Your task to perform on an android device: turn on the 24-hour format for clock Image 0: 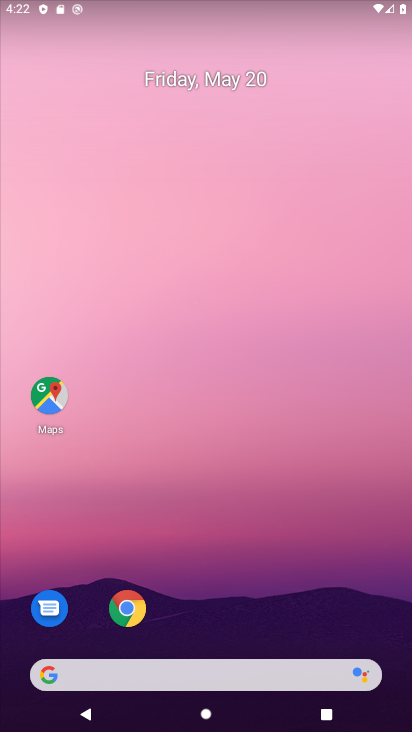
Step 0: drag from (211, 640) to (130, 42)
Your task to perform on an android device: turn on the 24-hour format for clock Image 1: 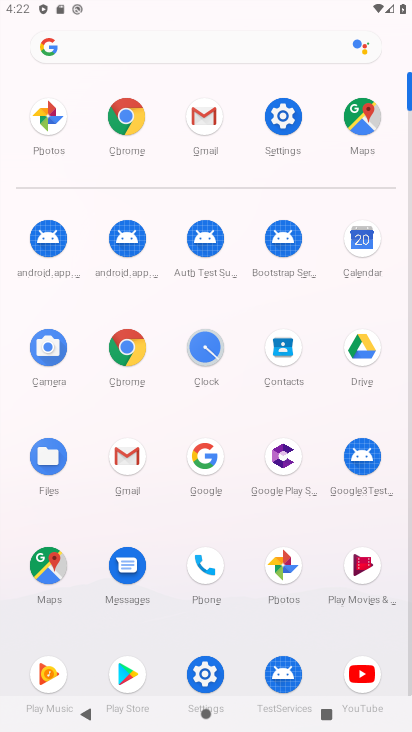
Step 1: click (214, 345)
Your task to perform on an android device: turn on the 24-hour format for clock Image 2: 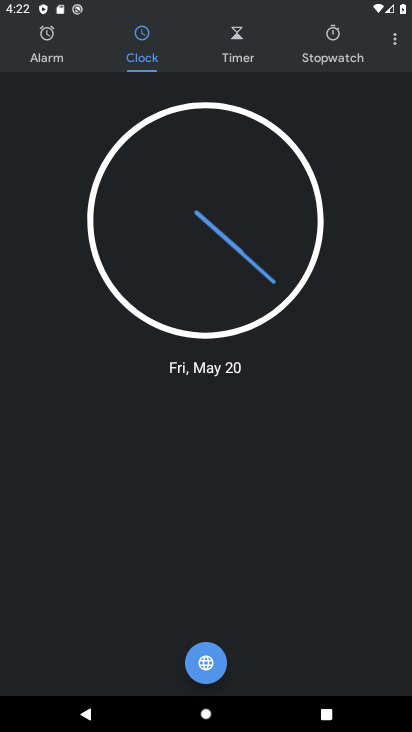
Step 2: drag from (396, 45) to (330, 177)
Your task to perform on an android device: turn on the 24-hour format for clock Image 3: 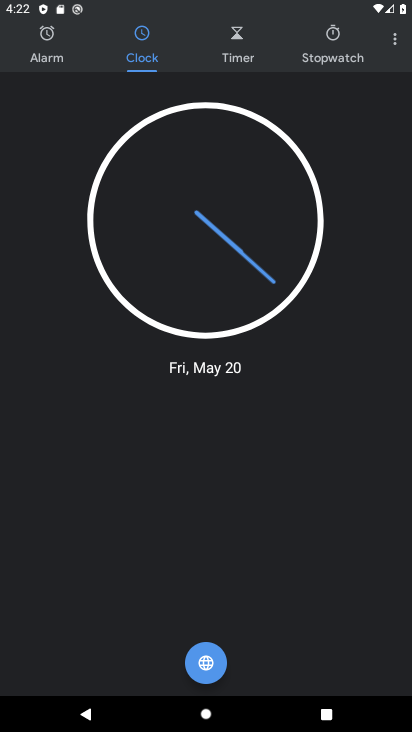
Step 3: click (390, 41)
Your task to perform on an android device: turn on the 24-hour format for clock Image 4: 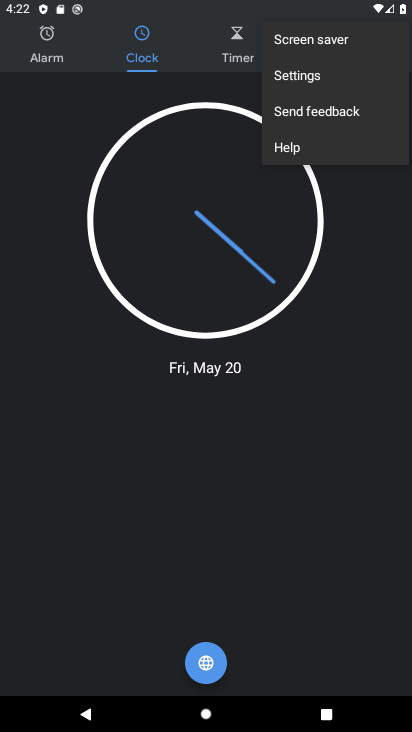
Step 4: click (320, 66)
Your task to perform on an android device: turn on the 24-hour format for clock Image 5: 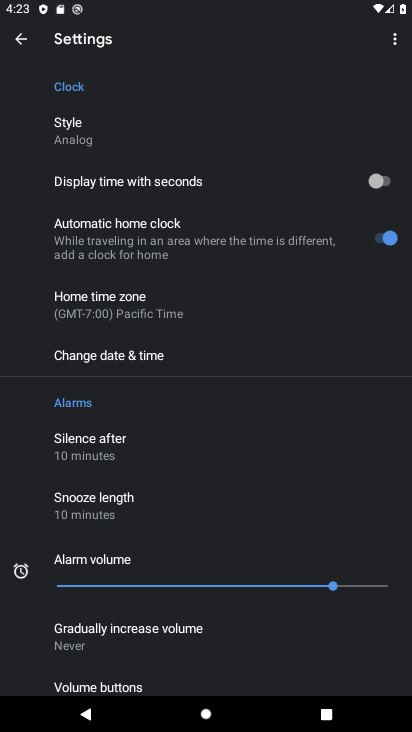
Step 5: click (100, 365)
Your task to perform on an android device: turn on the 24-hour format for clock Image 6: 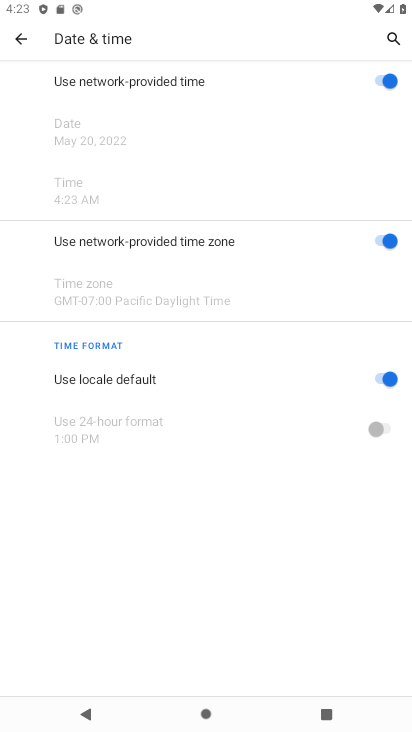
Step 6: click (391, 377)
Your task to perform on an android device: turn on the 24-hour format for clock Image 7: 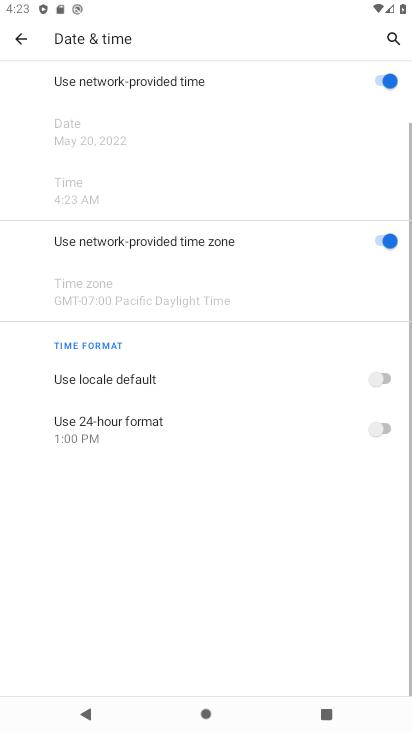
Step 7: click (377, 429)
Your task to perform on an android device: turn on the 24-hour format for clock Image 8: 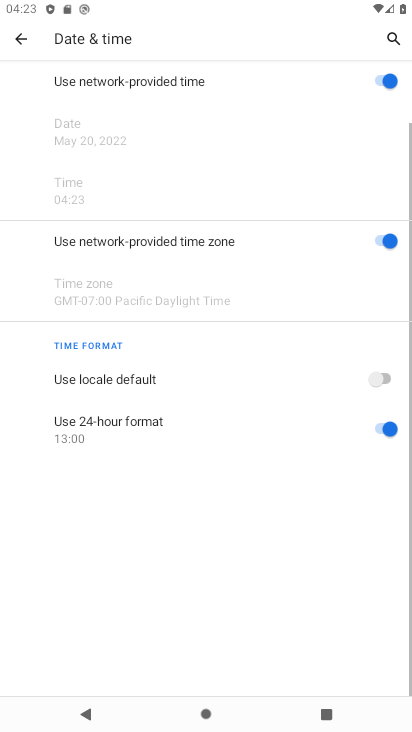
Step 8: task complete